Your task to perform on an android device: open the mobile data screen to see how much data has been used Image 0: 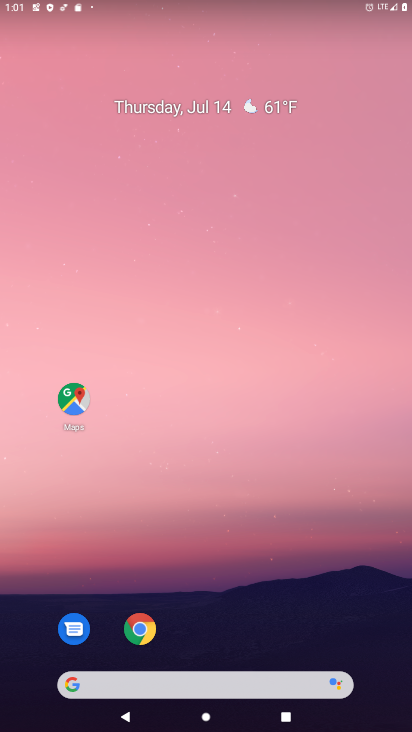
Step 0: press home button
Your task to perform on an android device: open the mobile data screen to see how much data has been used Image 1: 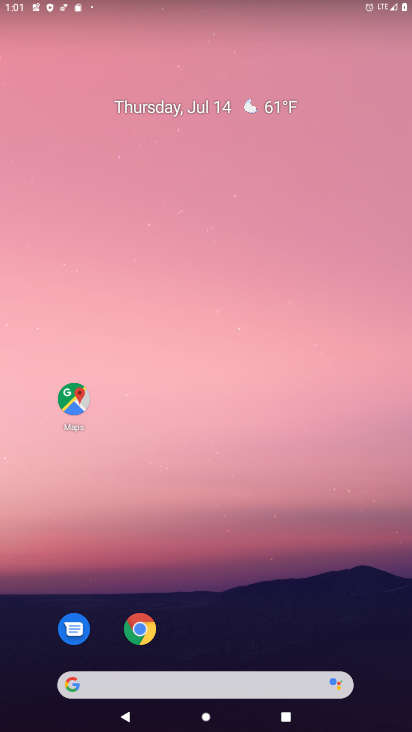
Step 1: drag from (223, 616) to (127, 120)
Your task to perform on an android device: open the mobile data screen to see how much data has been used Image 2: 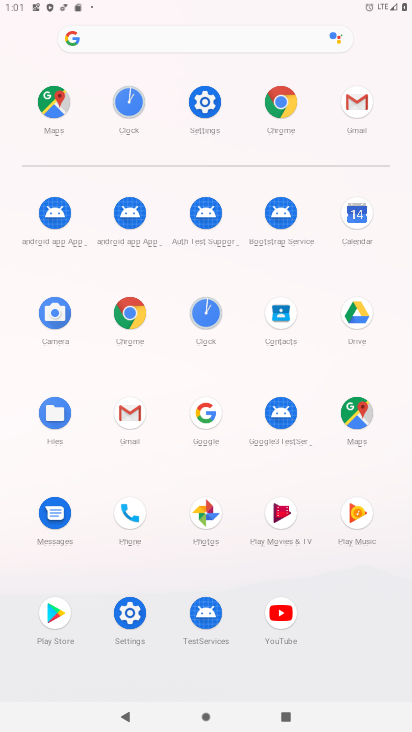
Step 2: click (204, 103)
Your task to perform on an android device: open the mobile data screen to see how much data has been used Image 3: 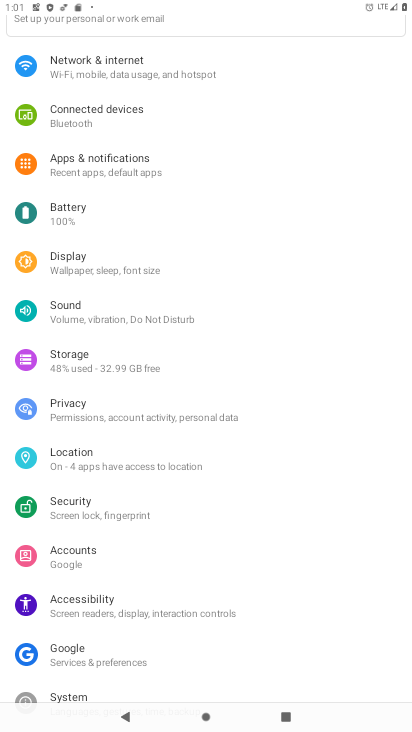
Step 3: click (103, 67)
Your task to perform on an android device: open the mobile data screen to see how much data has been used Image 4: 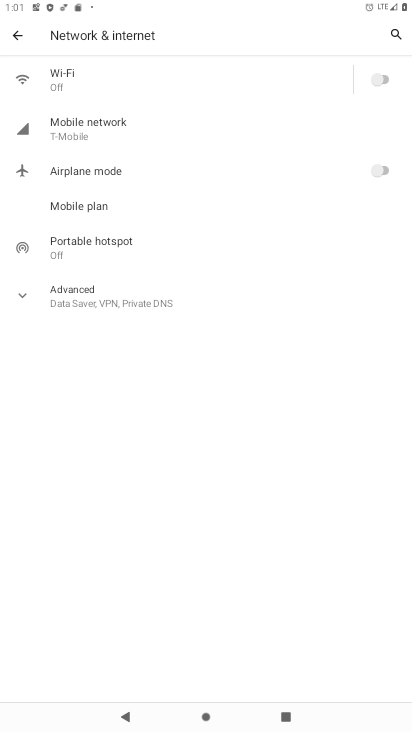
Step 4: click (98, 118)
Your task to perform on an android device: open the mobile data screen to see how much data has been used Image 5: 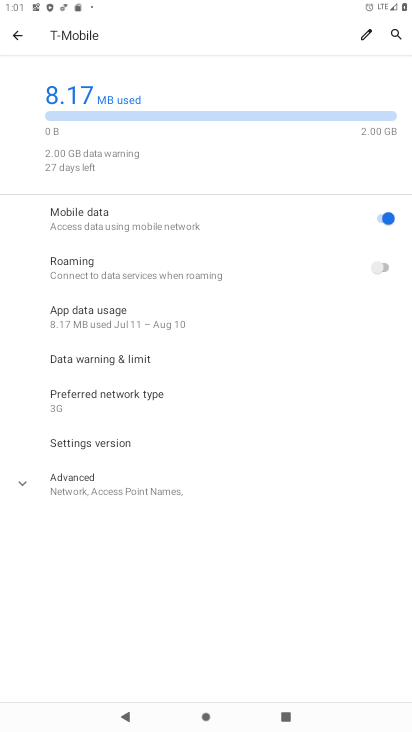
Step 5: task complete